Your task to perform on an android device: Is it going to rain today? Image 0: 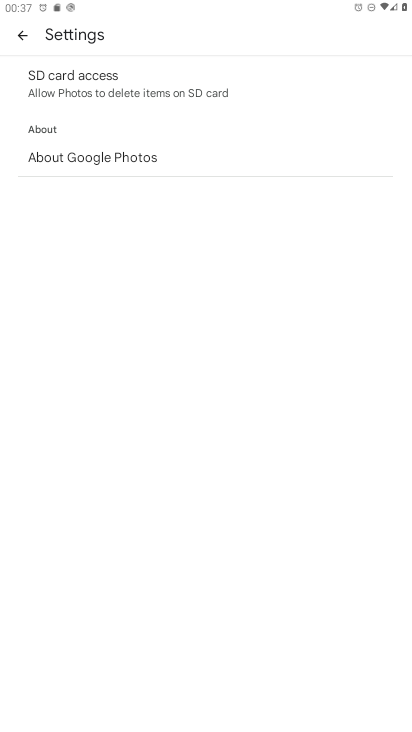
Step 0: press home button
Your task to perform on an android device: Is it going to rain today? Image 1: 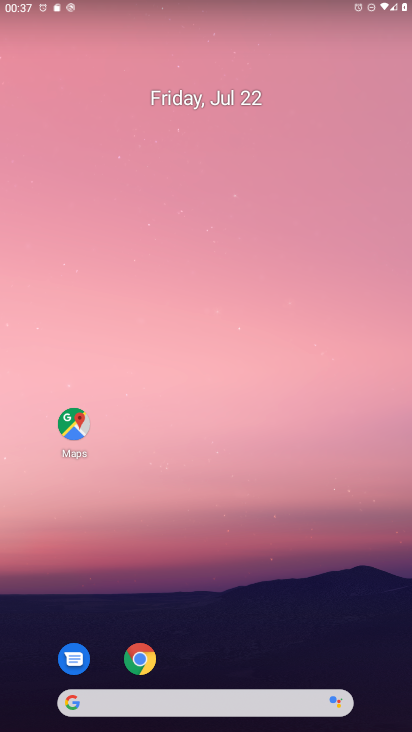
Step 1: drag from (186, 700) to (167, 100)
Your task to perform on an android device: Is it going to rain today? Image 2: 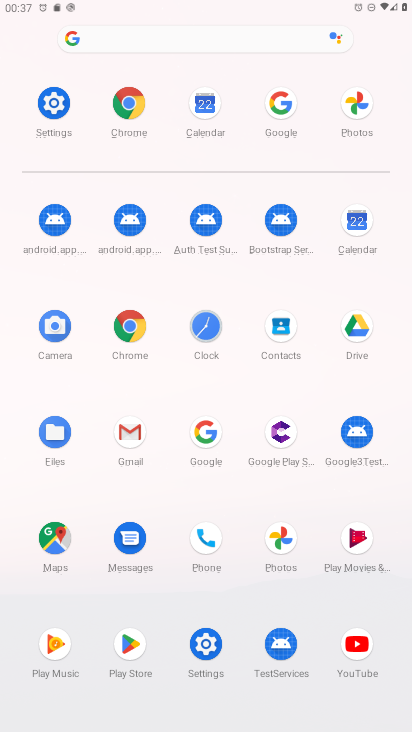
Step 2: click (276, 104)
Your task to perform on an android device: Is it going to rain today? Image 3: 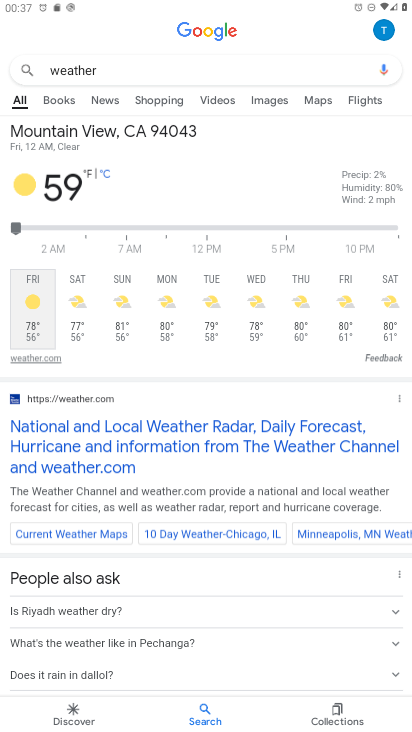
Step 3: click (302, 68)
Your task to perform on an android device: Is it going to rain today? Image 4: 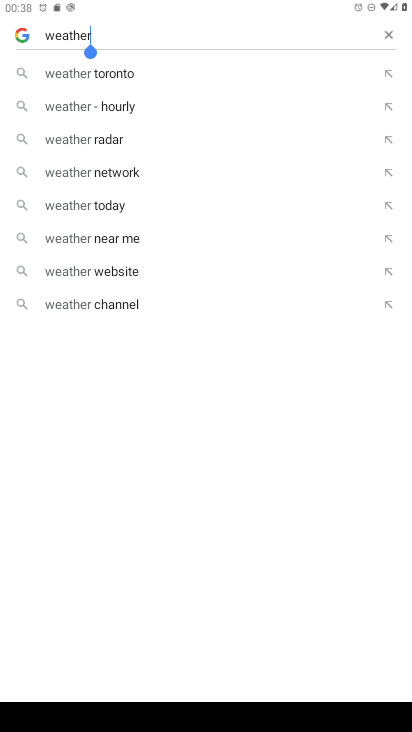
Step 4: click (386, 38)
Your task to perform on an android device: Is it going to rain today? Image 5: 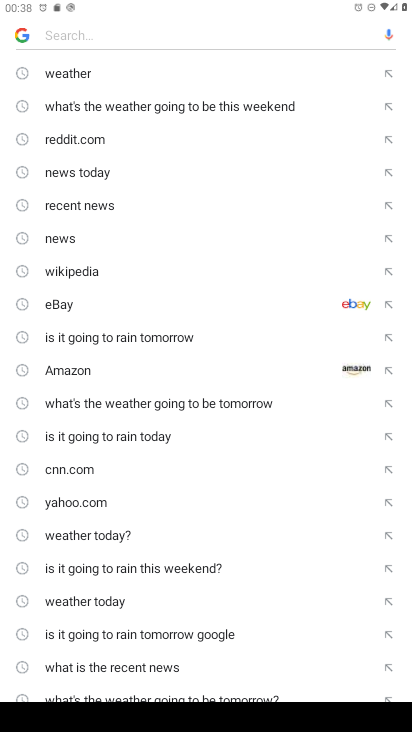
Step 5: type "Is it going to rain today?"
Your task to perform on an android device: Is it going to rain today? Image 6: 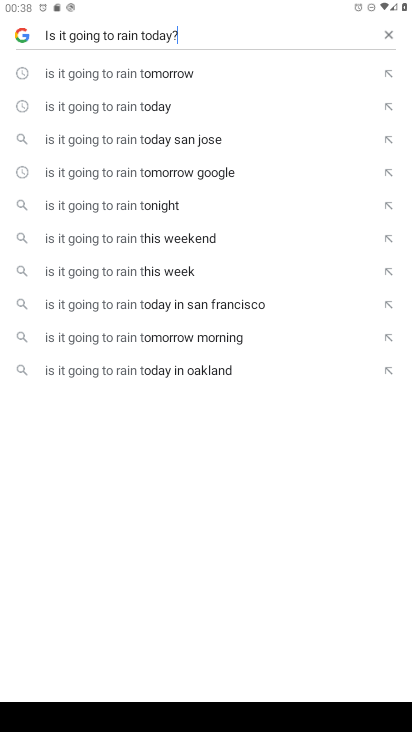
Step 6: type ""
Your task to perform on an android device: Is it going to rain today? Image 7: 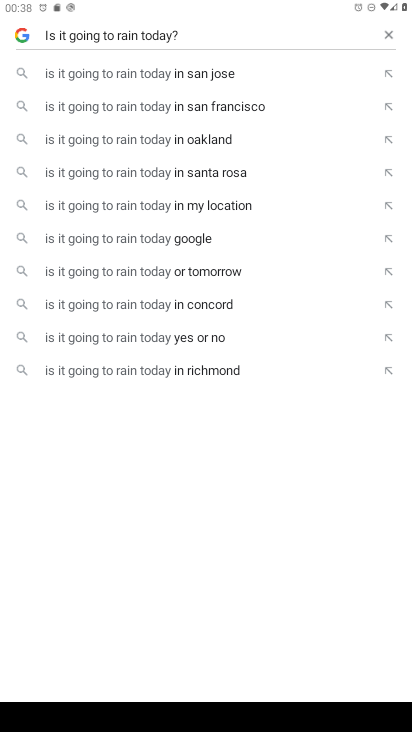
Step 7: click (95, 78)
Your task to perform on an android device: Is it going to rain today? Image 8: 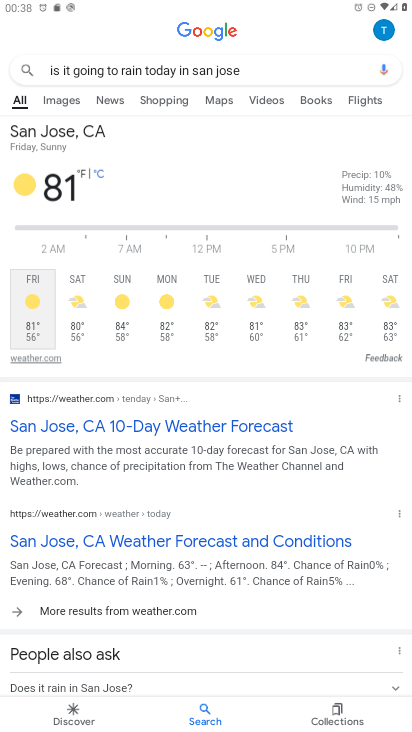
Step 8: task complete